Your task to perform on an android device: What's the weather today? Image 0: 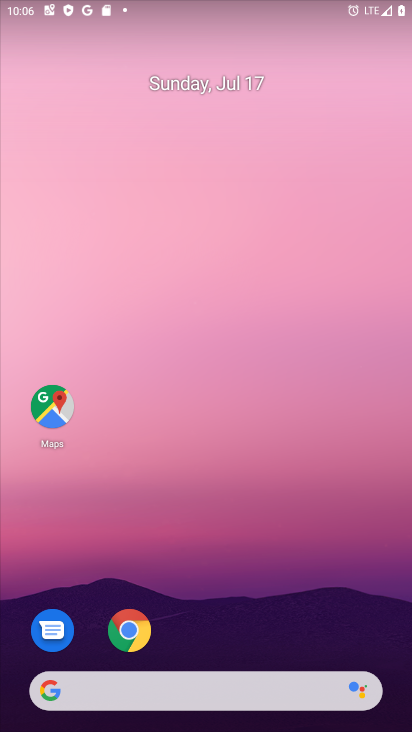
Step 0: press home button
Your task to perform on an android device: What's the weather today? Image 1: 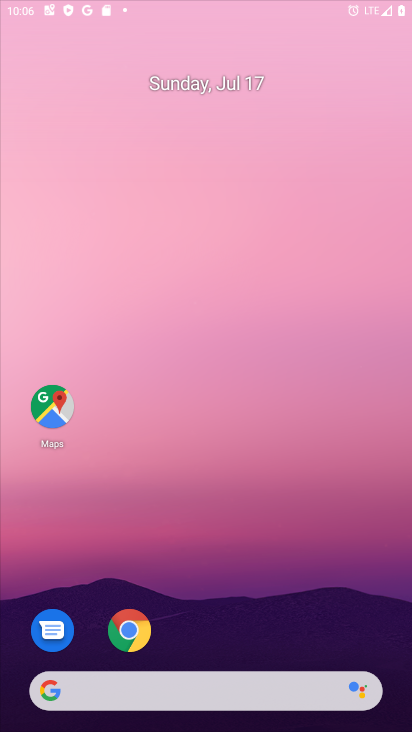
Step 1: drag from (212, 653) to (269, 113)
Your task to perform on an android device: What's the weather today? Image 2: 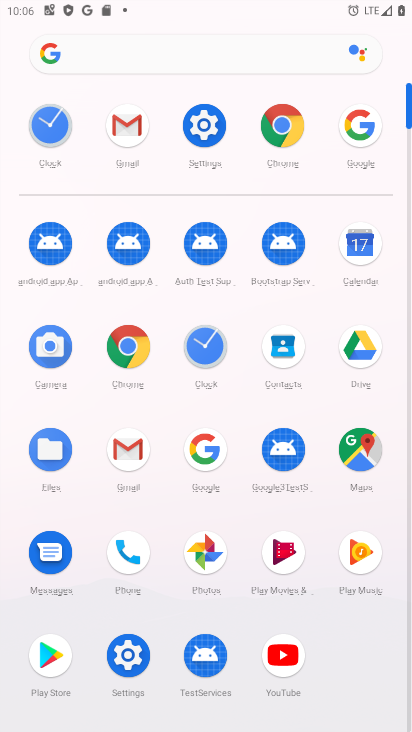
Step 2: press back button
Your task to perform on an android device: What's the weather today? Image 3: 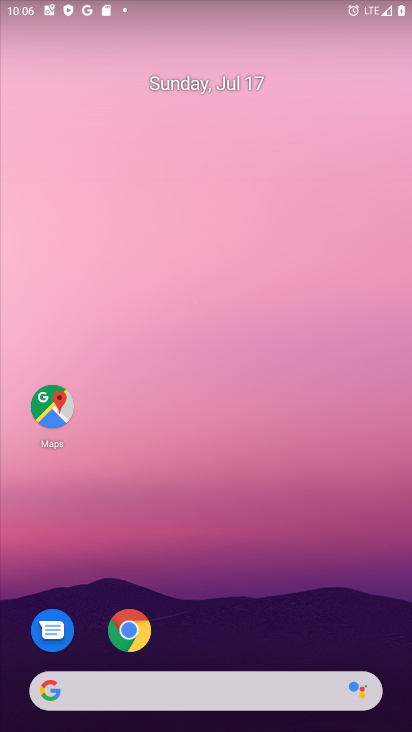
Step 3: drag from (0, 287) to (403, 307)
Your task to perform on an android device: What's the weather today? Image 4: 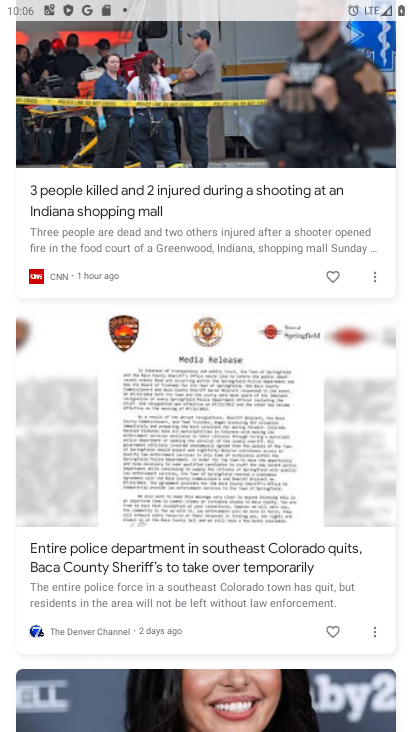
Step 4: drag from (211, 97) to (214, 650)
Your task to perform on an android device: What's the weather today? Image 5: 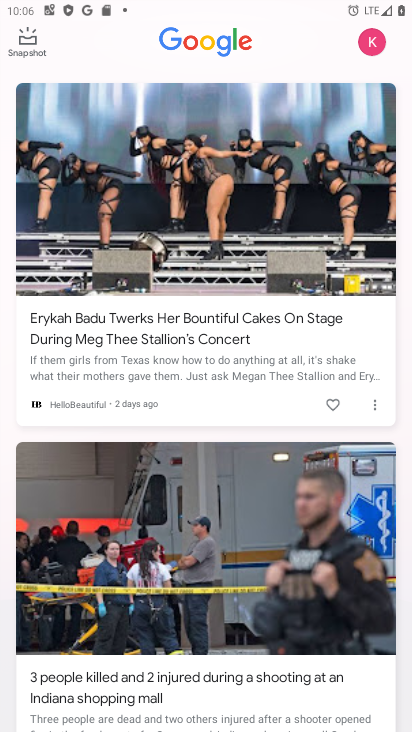
Step 5: drag from (202, 133) to (233, 410)
Your task to perform on an android device: What's the weather today? Image 6: 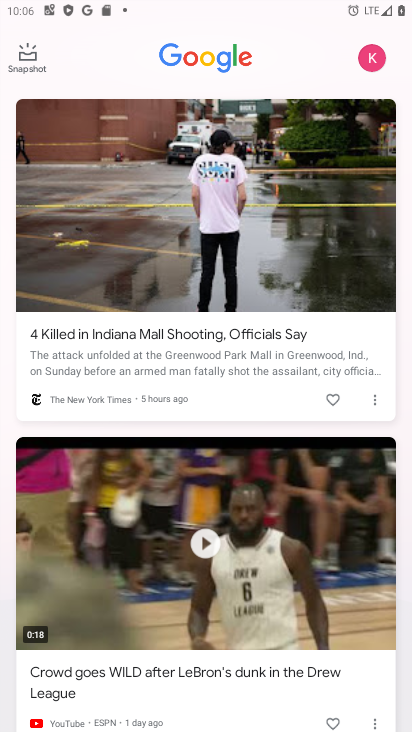
Step 6: press back button
Your task to perform on an android device: What's the weather today? Image 7: 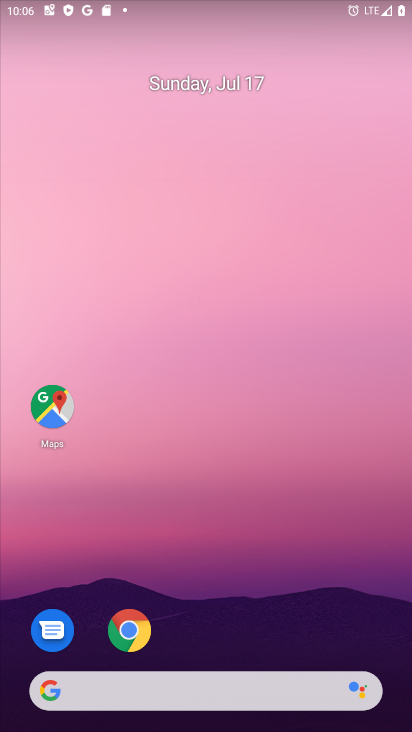
Step 7: click (141, 694)
Your task to perform on an android device: What's the weather today? Image 8: 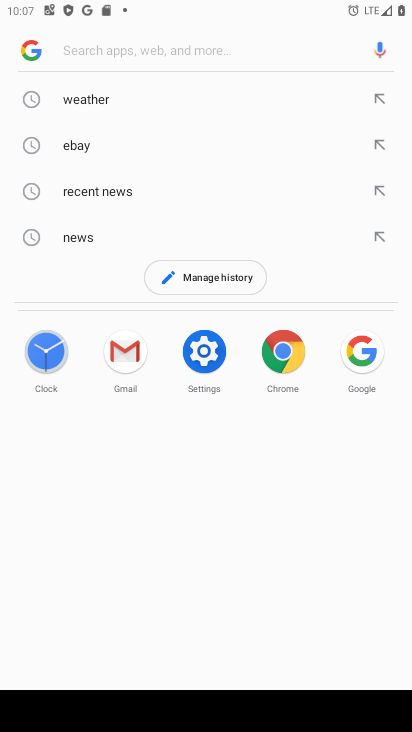
Step 8: click (102, 94)
Your task to perform on an android device: What's the weather today? Image 9: 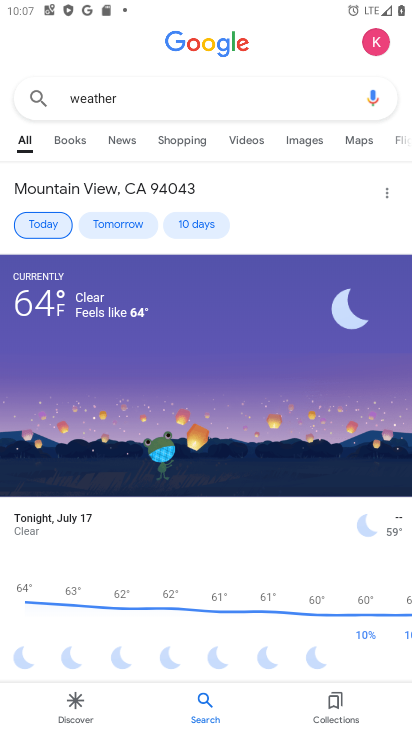
Step 9: task complete